Your task to perform on an android device: turn on the 24-hour format for clock Image 0: 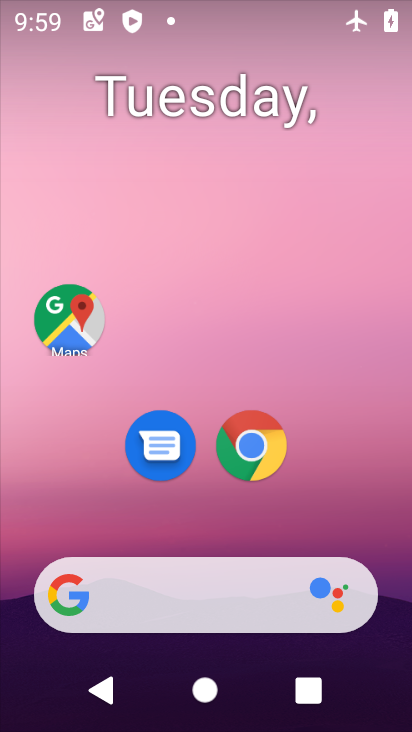
Step 0: drag from (341, 532) to (193, 118)
Your task to perform on an android device: turn on the 24-hour format for clock Image 1: 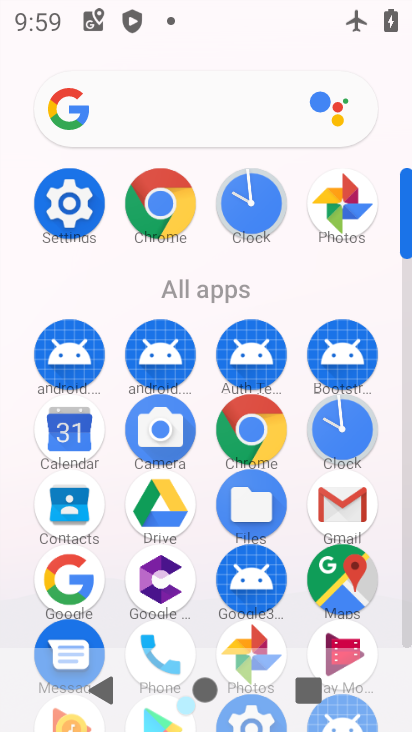
Step 1: click (363, 433)
Your task to perform on an android device: turn on the 24-hour format for clock Image 2: 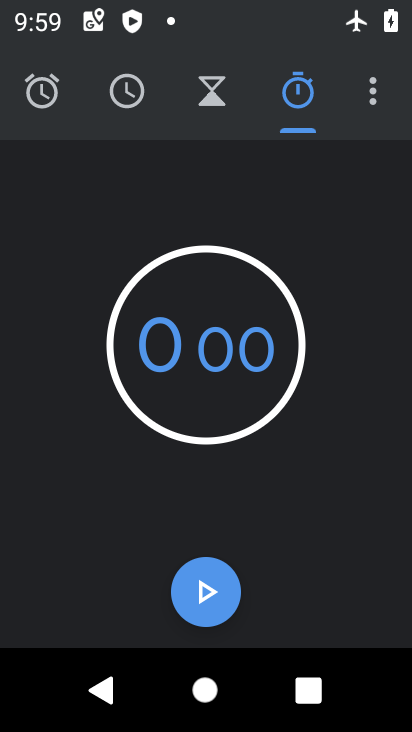
Step 2: click (377, 102)
Your task to perform on an android device: turn on the 24-hour format for clock Image 3: 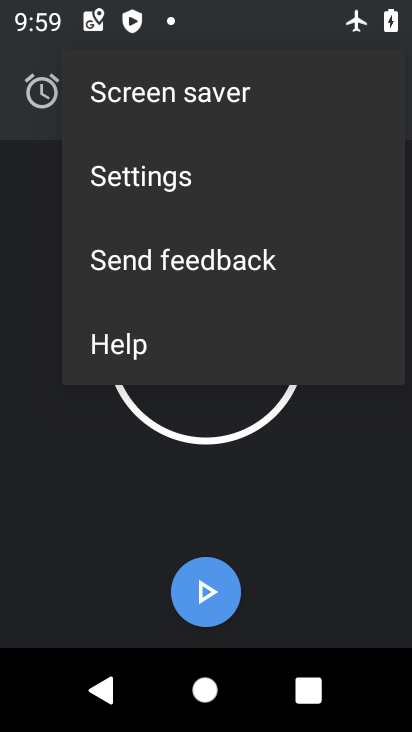
Step 3: click (313, 166)
Your task to perform on an android device: turn on the 24-hour format for clock Image 4: 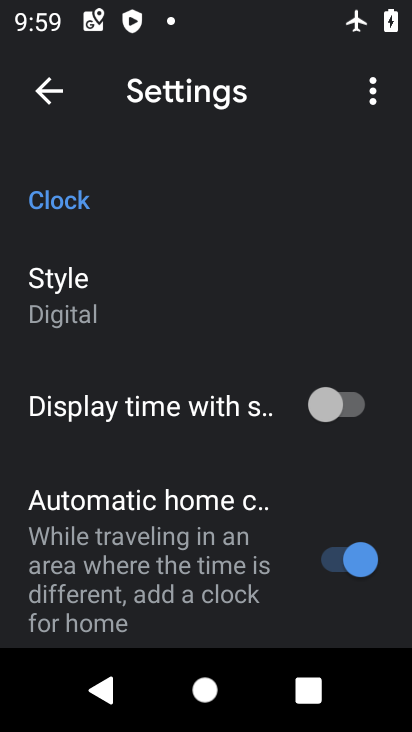
Step 4: drag from (258, 404) to (202, 145)
Your task to perform on an android device: turn on the 24-hour format for clock Image 5: 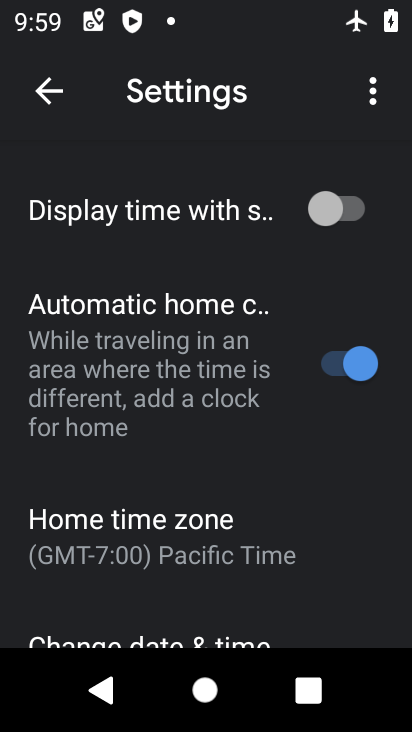
Step 5: drag from (334, 604) to (276, 250)
Your task to perform on an android device: turn on the 24-hour format for clock Image 6: 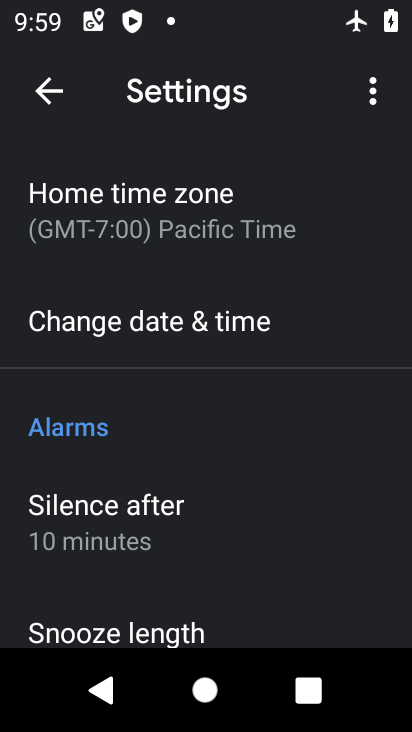
Step 6: click (288, 320)
Your task to perform on an android device: turn on the 24-hour format for clock Image 7: 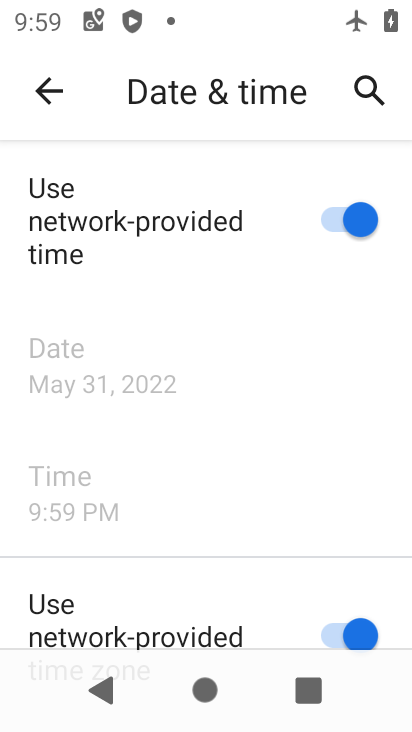
Step 7: drag from (285, 650) to (251, 402)
Your task to perform on an android device: turn on the 24-hour format for clock Image 8: 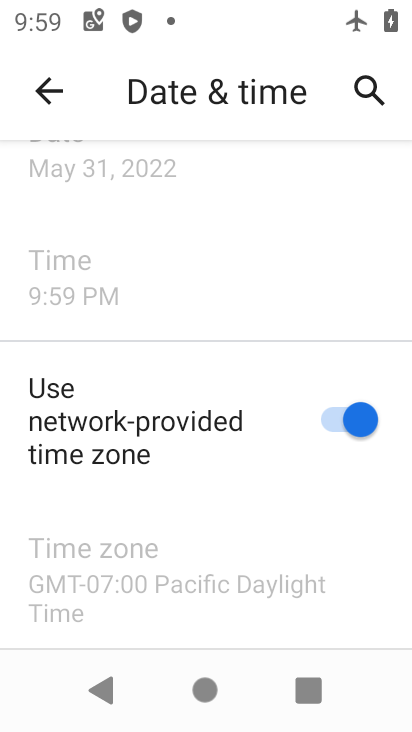
Step 8: drag from (243, 602) to (173, 181)
Your task to perform on an android device: turn on the 24-hour format for clock Image 9: 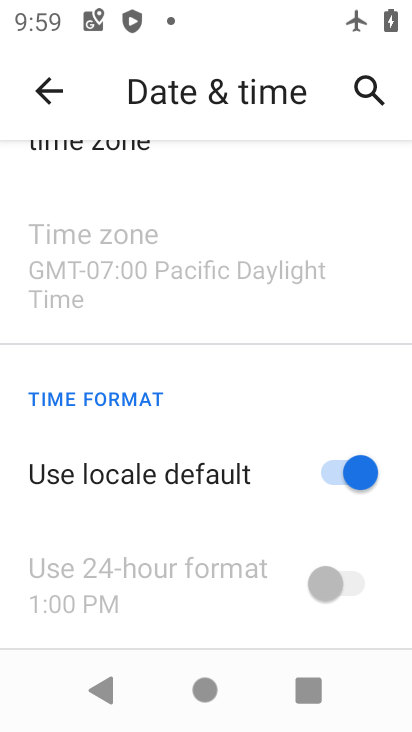
Step 9: click (342, 470)
Your task to perform on an android device: turn on the 24-hour format for clock Image 10: 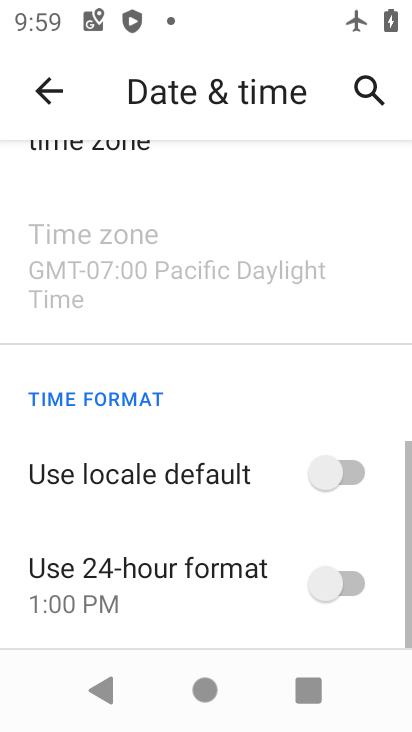
Step 10: click (348, 576)
Your task to perform on an android device: turn on the 24-hour format for clock Image 11: 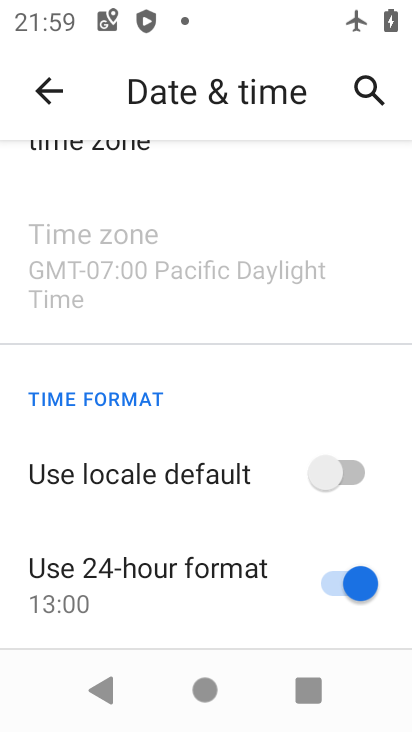
Step 11: task complete